Your task to perform on an android device: Go to notification settings Image 0: 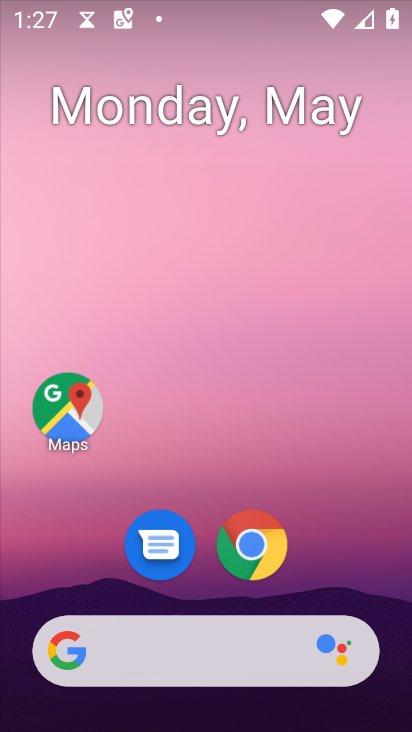
Step 0: click (331, 319)
Your task to perform on an android device: Go to notification settings Image 1: 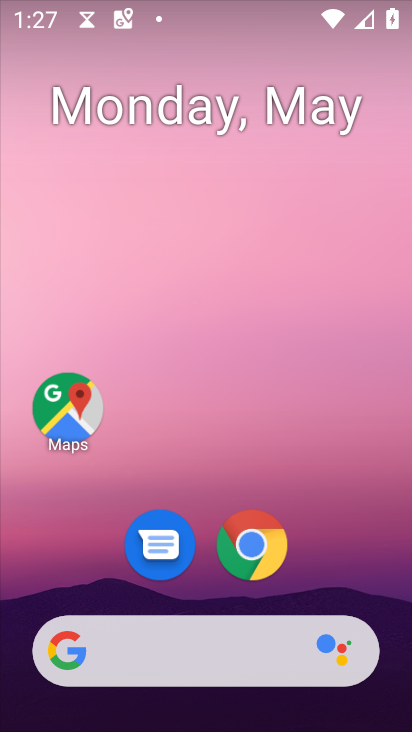
Step 1: drag from (323, 549) to (298, 296)
Your task to perform on an android device: Go to notification settings Image 2: 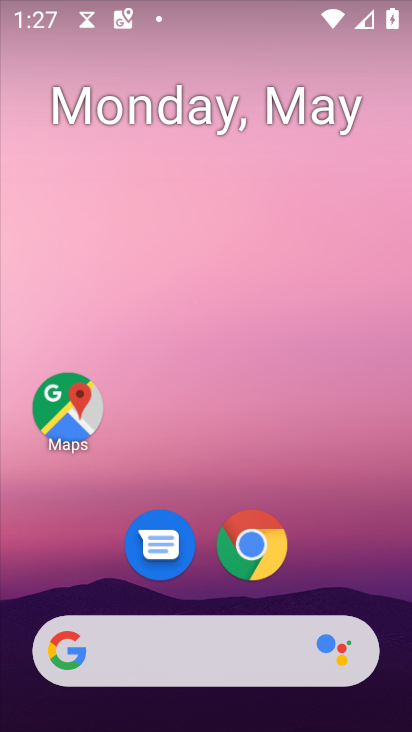
Step 2: drag from (293, 547) to (256, 261)
Your task to perform on an android device: Go to notification settings Image 3: 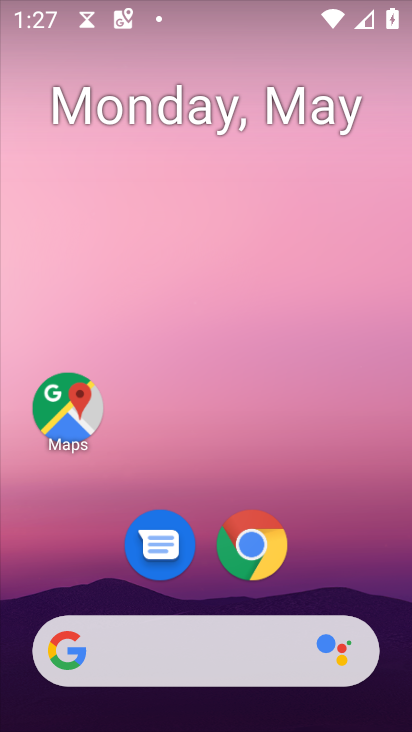
Step 3: drag from (295, 566) to (253, 302)
Your task to perform on an android device: Go to notification settings Image 4: 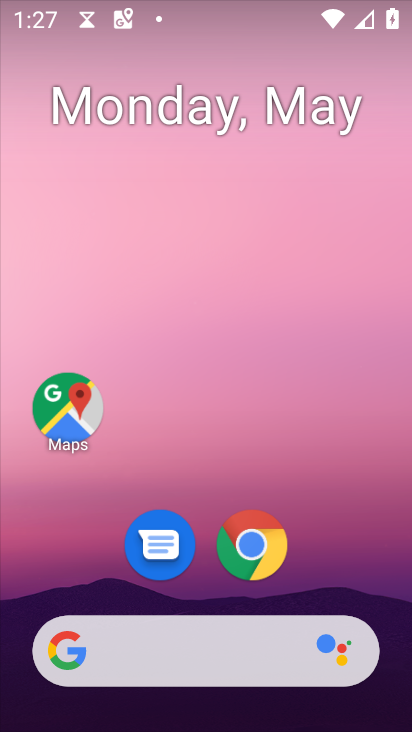
Step 4: drag from (369, 327) to (359, 231)
Your task to perform on an android device: Go to notification settings Image 5: 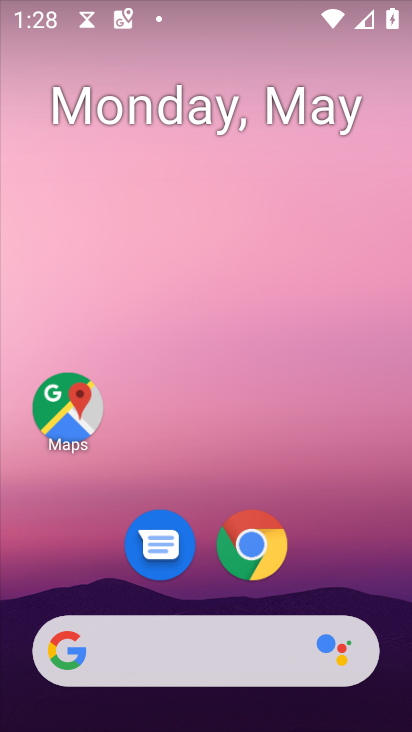
Step 5: drag from (346, 597) to (314, 188)
Your task to perform on an android device: Go to notification settings Image 6: 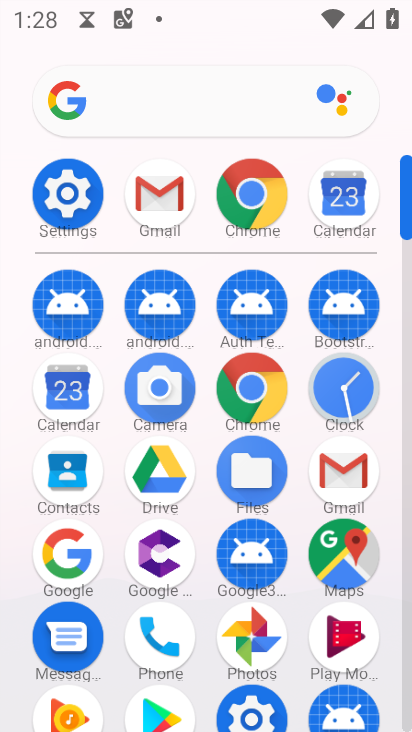
Step 6: click (76, 186)
Your task to perform on an android device: Go to notification settings Image 7: 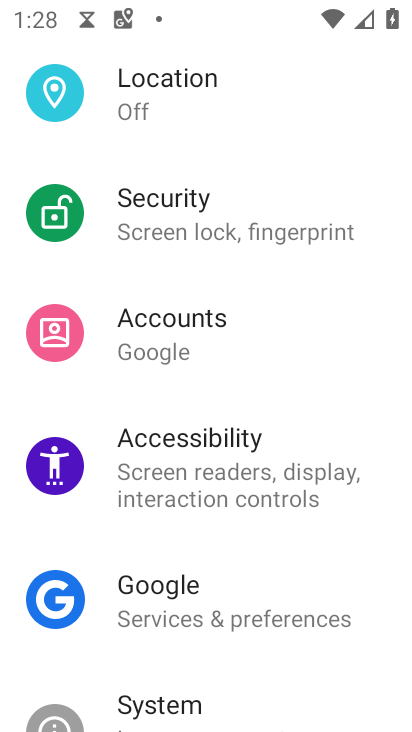
Step 7: drag from (266, 95) to (285, 576)
Your task to perform on an android device: Go to notification settings Image 8: 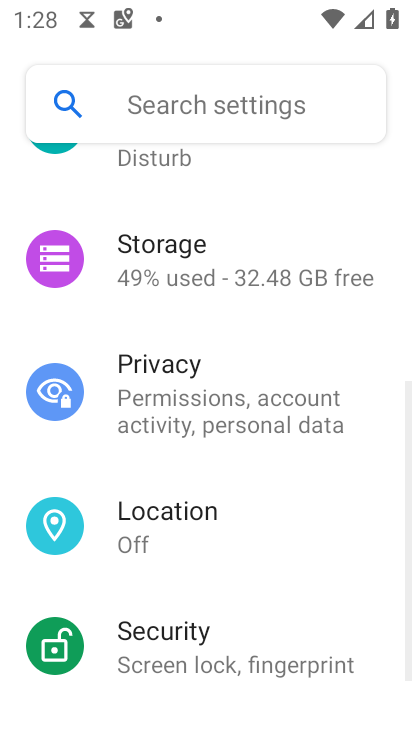
Step 8: drag from (207, 177) to (245, 524)
Your task to perform on an android device: Go to notification settings Image 9: 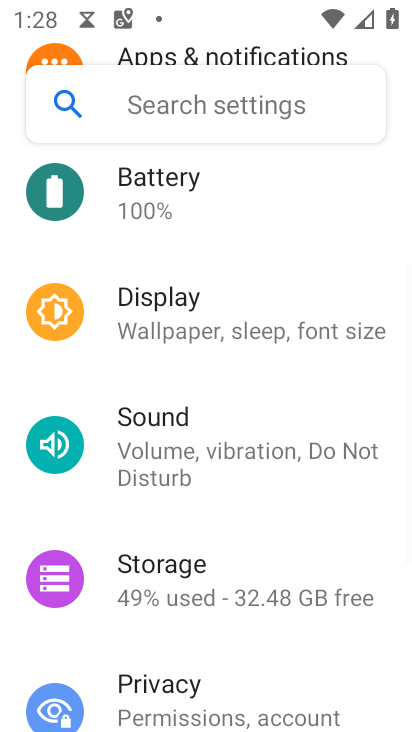
Step 9: drag from (202, 219) to (200, 592)
Your task to perform on an android device: Go to notification settings Image 10: 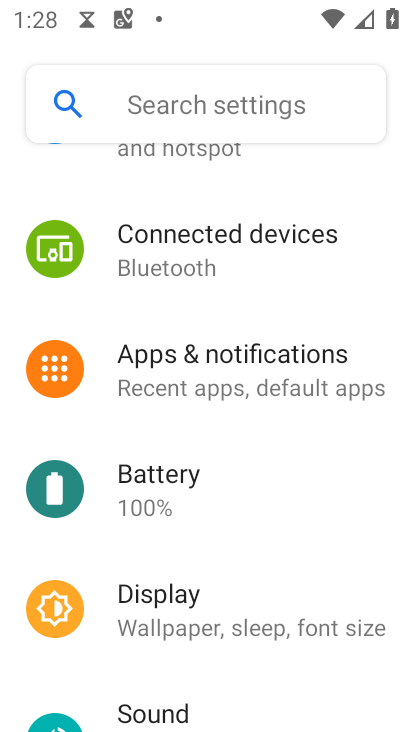
Step 10: click (229, 353)
Your task to perform on an android device: Go to notification settings Image 11: 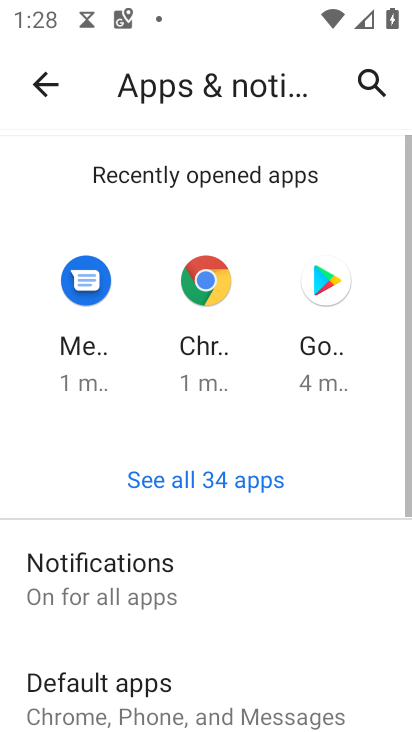
Step 11: drag from (248, 546) to (290, 199)
Your task to perform on an android device: Go to notification settings Image 12: 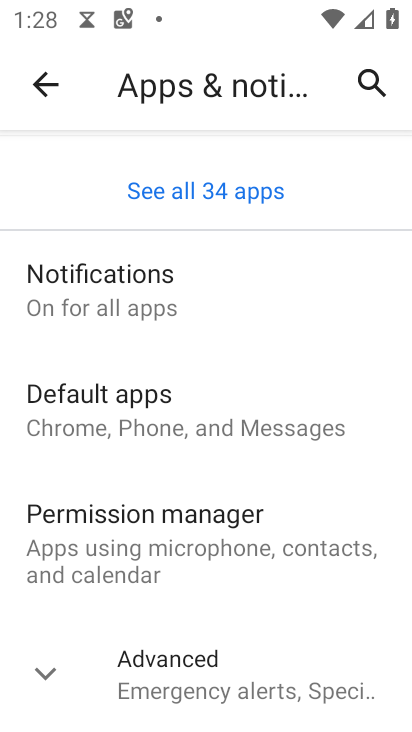
Step 12: drag from (199, 563) to (238, 328)
Your task to perform on an android device: Go to notification settings Image 13: 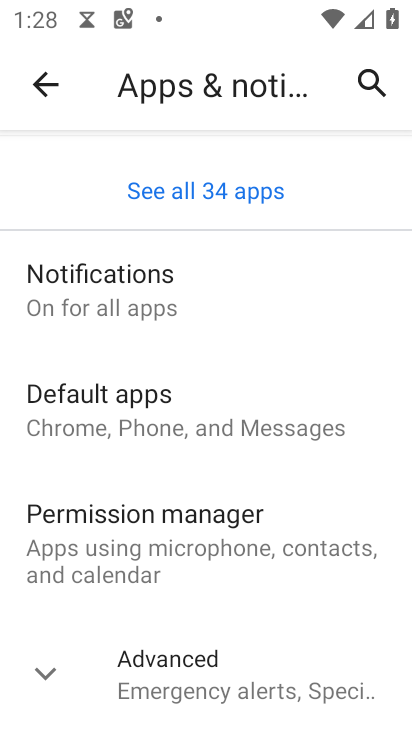
Step 13: click (199, 260)
Your task to perform on an android device: Go to notification settings Image 14: 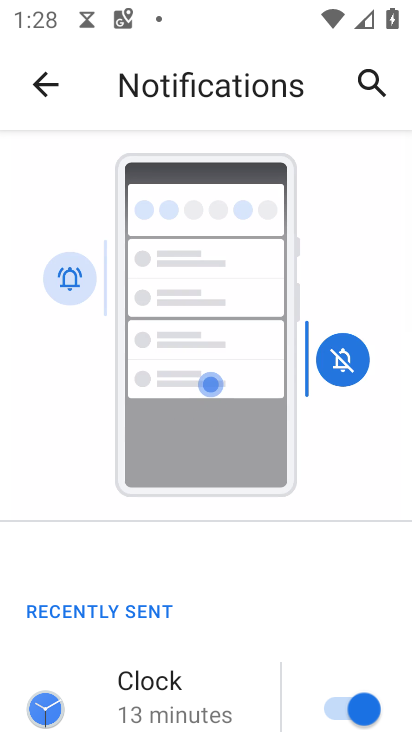
Step 14: task complete